Your task to perform on an android device: turn on translation in the chrome app Image 0: 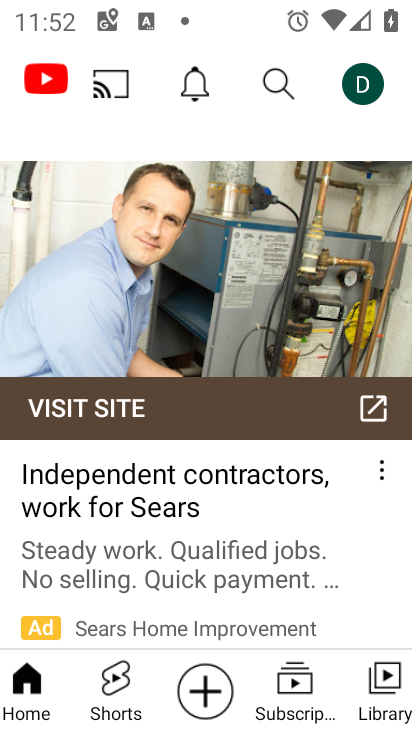
Step 0: press home button
Your task to perform on an android device: turn on translation in the chrome app Image 1: 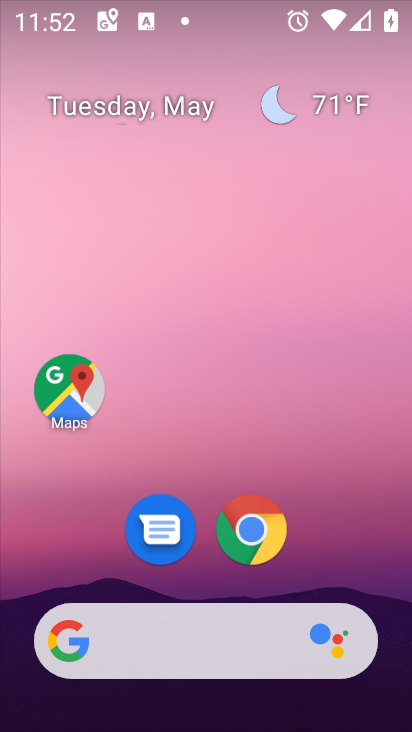
Step 1: drag from (181, 581) to (182, 14)
Your task to perform on an android device: turn on translation in the chrome app Image 2: 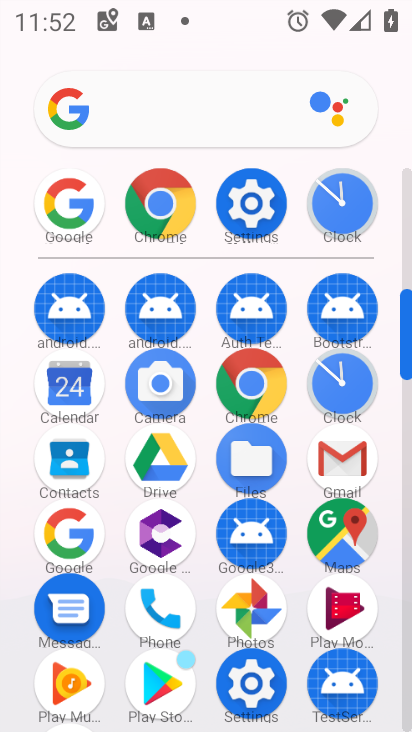
Step 2: click (143, 207)
Your task to perform on an android device: turn on translation in the chrome app Image 3: 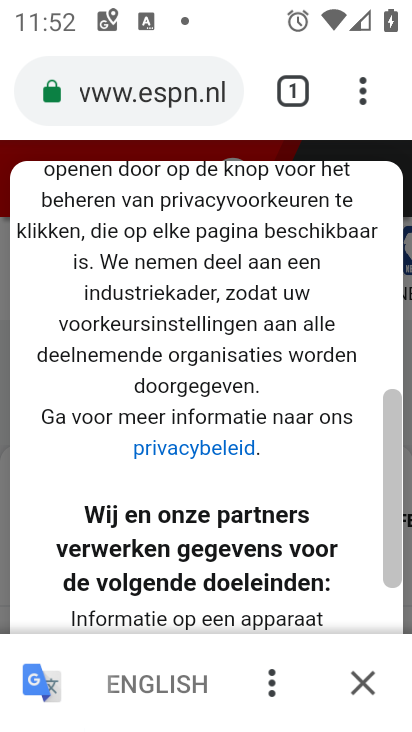
Step 3: click (379, 92)
Your task to perform on an android device: turn on translation in the chrome app Image 4: 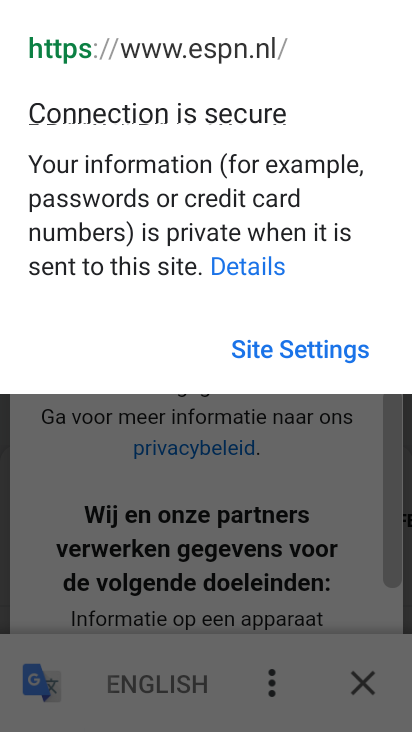
Step 4: click (300, 550)
Your task to perform on an android device: turn on translation in the chrome app Image 5: 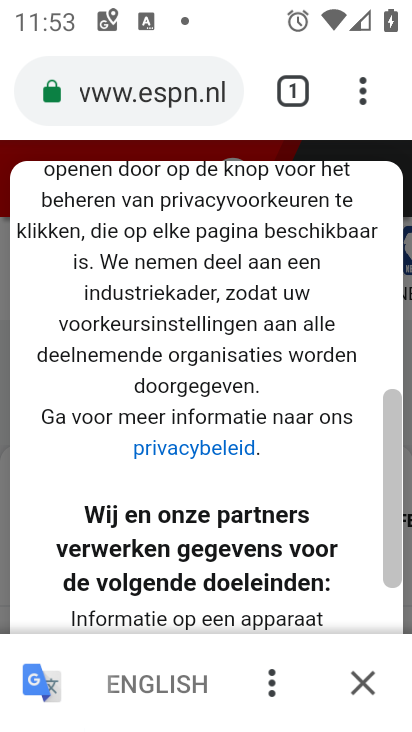
Step 5: click (360, 109)
Your task to perform on an android device: turn on translation in the chrome app Image 6: 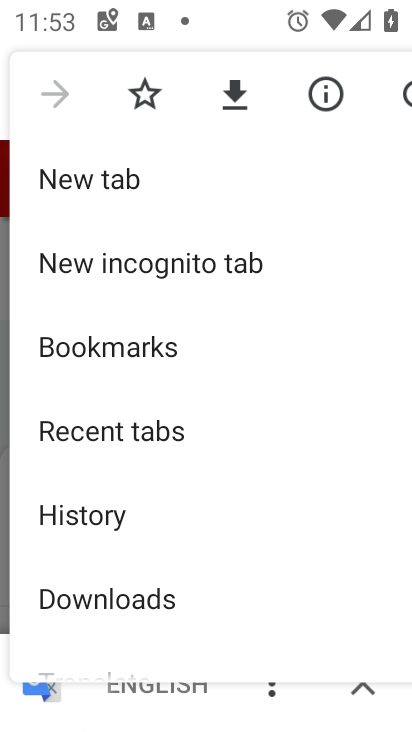
Step 6: drag from (197, 497) to (214, 312)
Your task to perform on an android device: turn on translation in the chrome app Image 7: 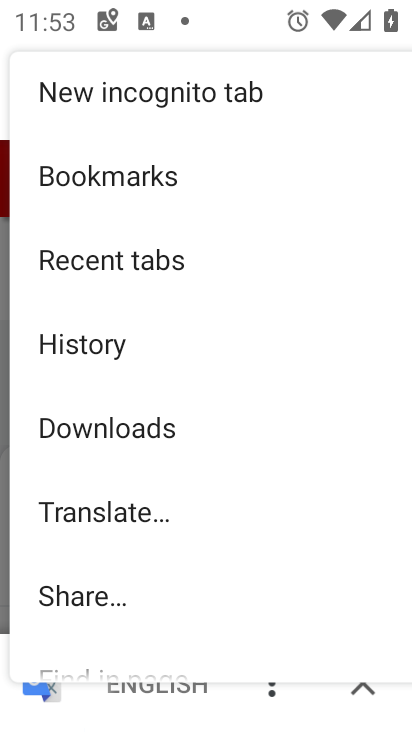
Step 7: click (175, 516)
Your task to perform on an android device: turn on translation in the chrome app Image 8: 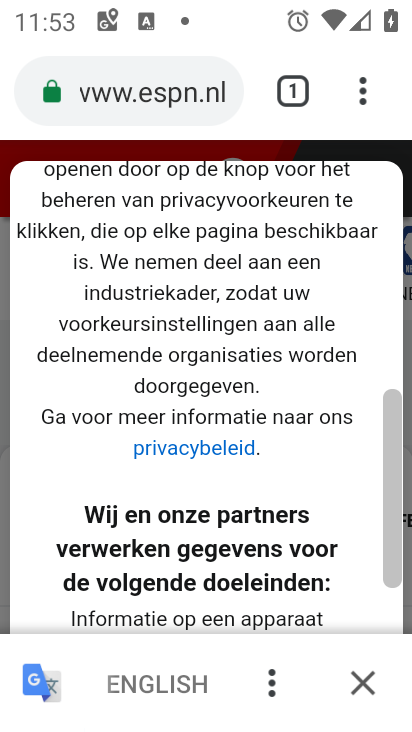
Step 8: click (269, 670)
Your task to perform on an android device: turn on translation in the chrome app Image 9: 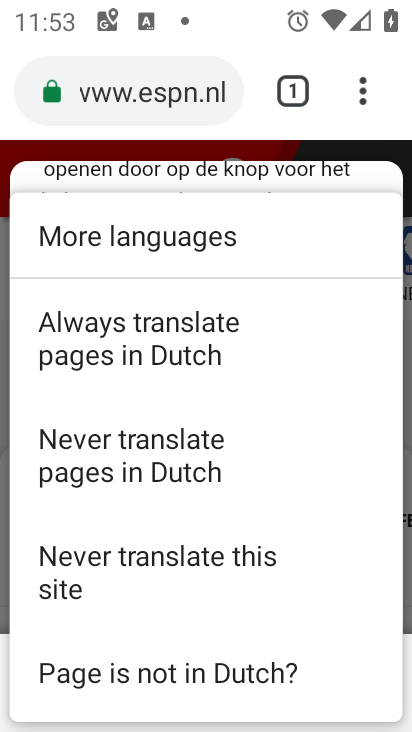
Step 9: click (167, 356)
Your task to perform on an android device: turn on translation in the chrome app Image 10: 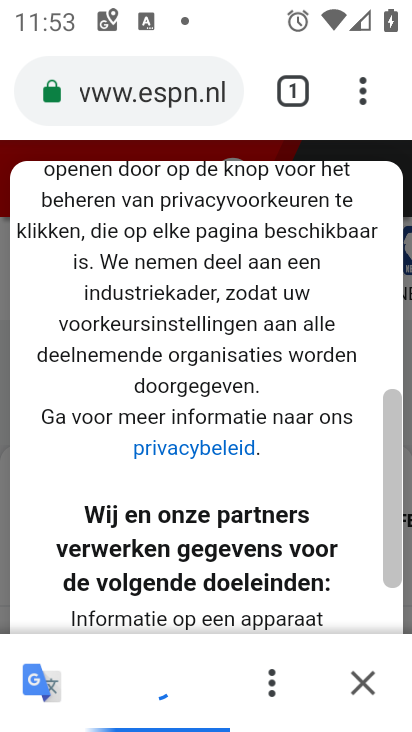
Step 10: task complete